Your task to perform on an android device: Find coffee shops on Maps Image 0: 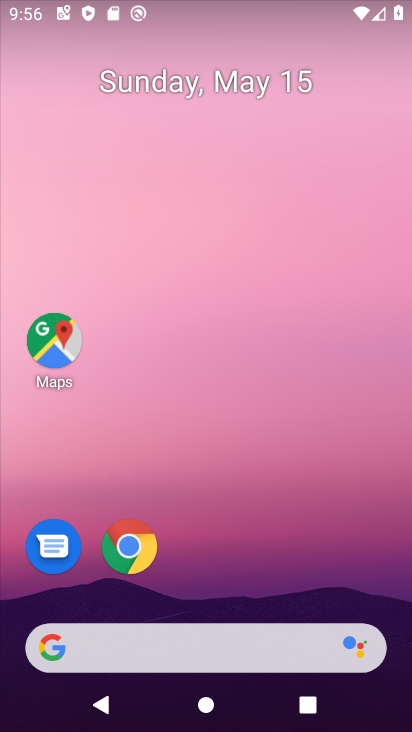
Step 0: click (52, 341)
Your task to perform on an android device: Find coffee shops on Maps Image 1: 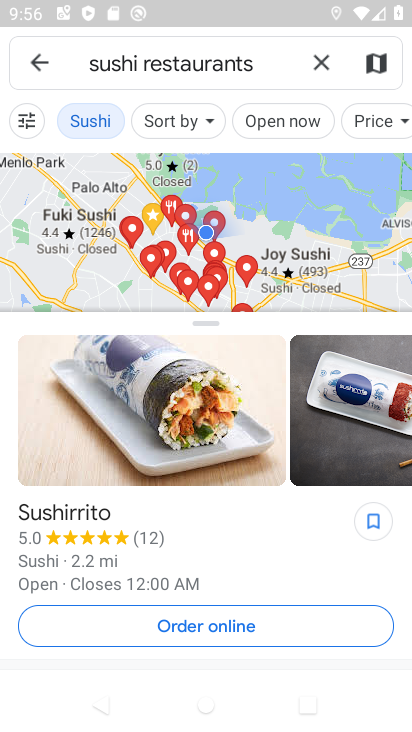
Step 1: click (261, 67)
Your task to perform on an android device: Find coffee shops on Maps Image 2: 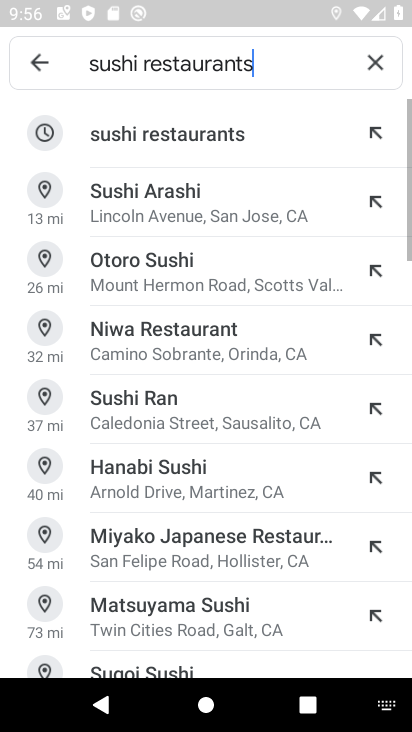
Step 2: click (370, 58)
Your task to perform on an android device: Find coffee shops on Maps Image 3: 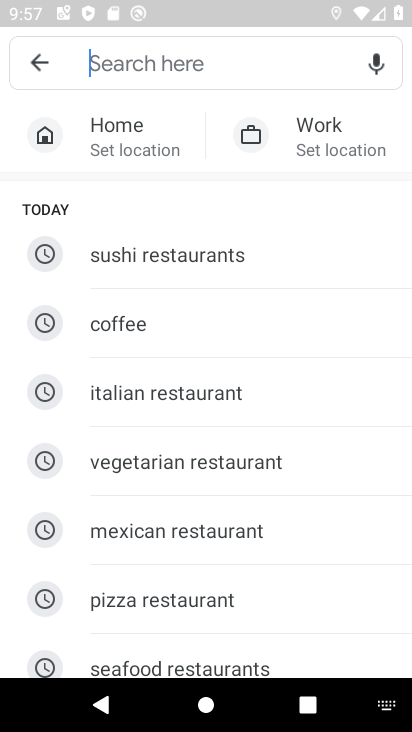
Step 3: type "coffee shops"
Your task to perform on an android device: Find coffee shops on Maps Image 4: 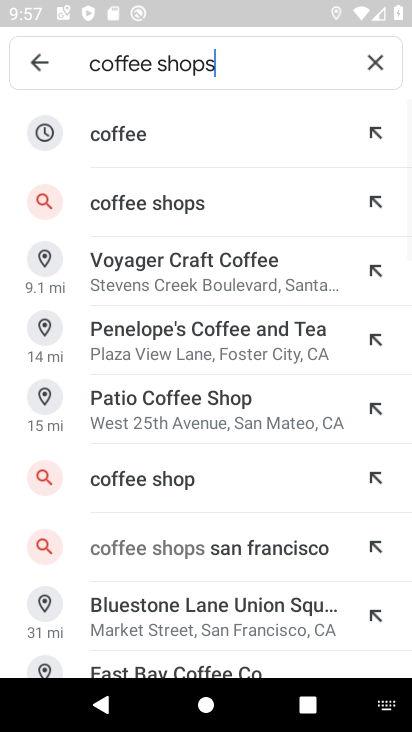
Step 4: click (171, 195)
Your task to perform on an android device: Find coffee shops on Maps Image 5: 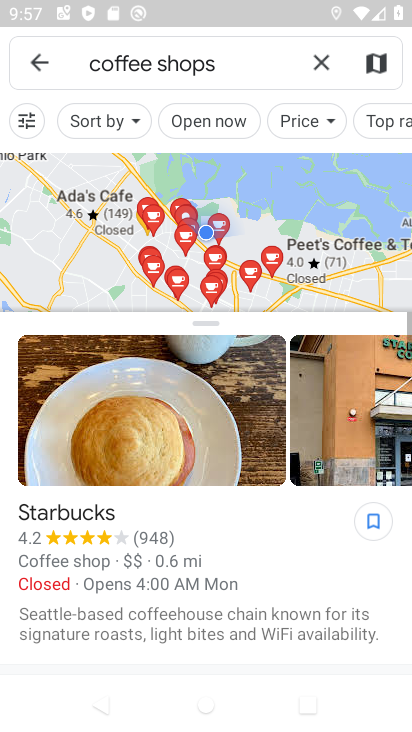
Step 5: task complete